Your task to perform on an android device: Open eBay Image 0: 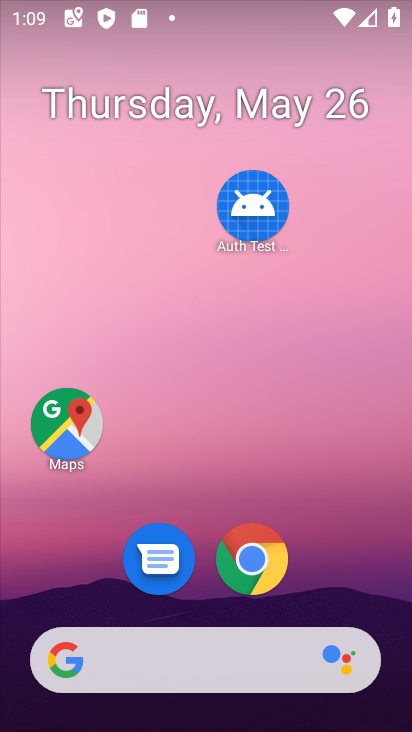
Step 0: click (249, 556)
Your task to perform on an android device: Open eBay Image 1: 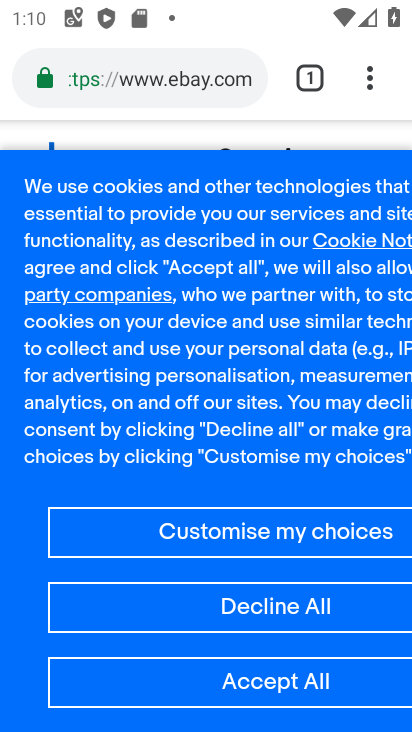
Step 1: click (268, 685)
Your task to perform on an android device: Open eBay Image 2: 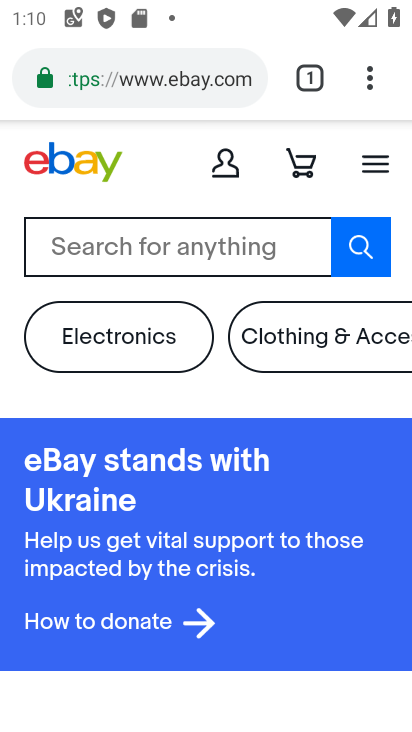
Step 2: task complete